Your task to perform on an android device: Clear the cart on costco. Add razer blade to the cart on costco, then select checkout. Image 0: 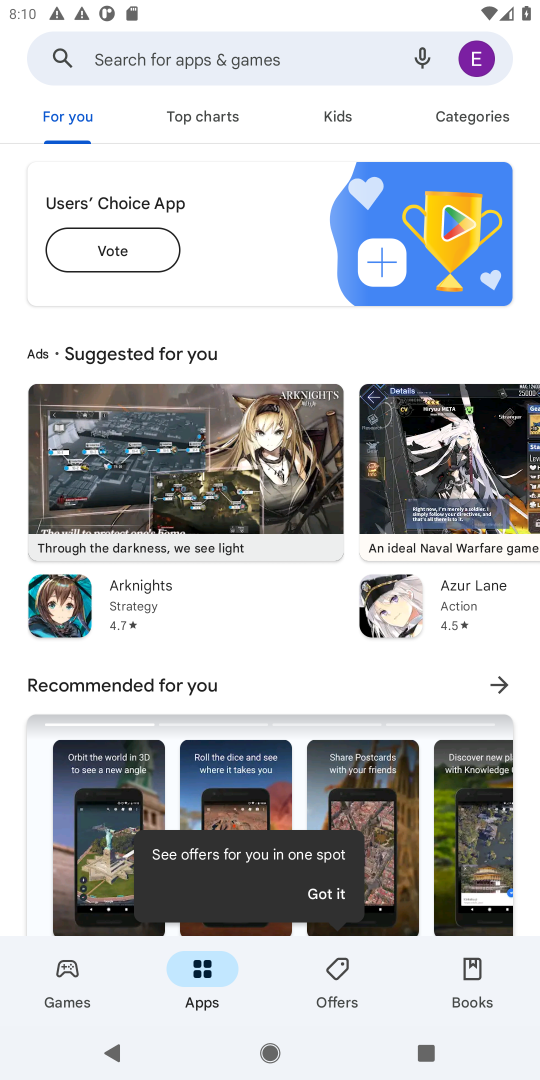
Step 0: press home button
Your task to perform on an android device: Clear the cart on costco. Add razer blade to the cart on costco, then select checkout. Image 1: 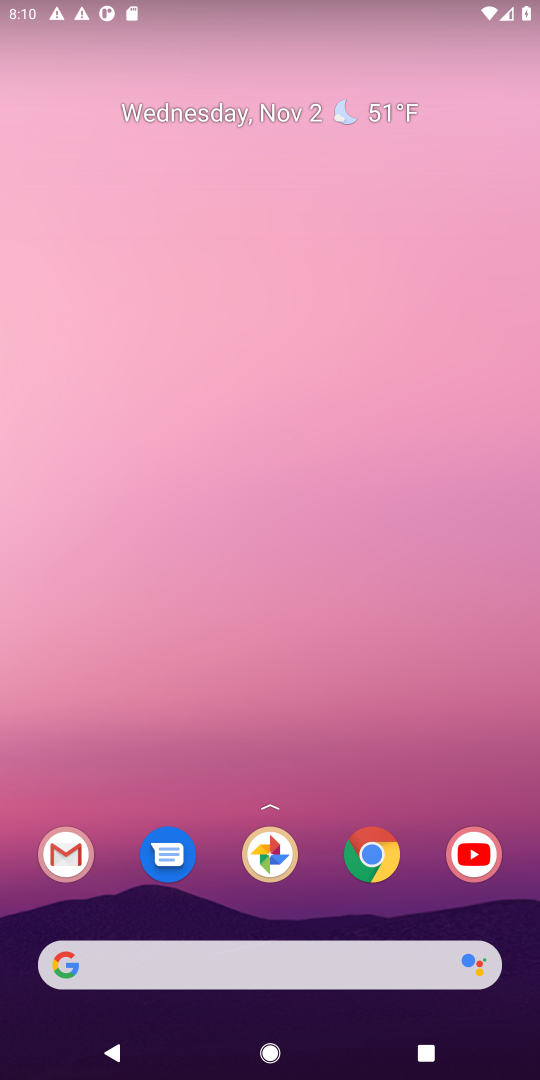
Step 1: click (368, 866)
Your task to perform on an android device: Clear the cart on costco. Add razer blade to the cart on costco, then select checkout. Image 2: 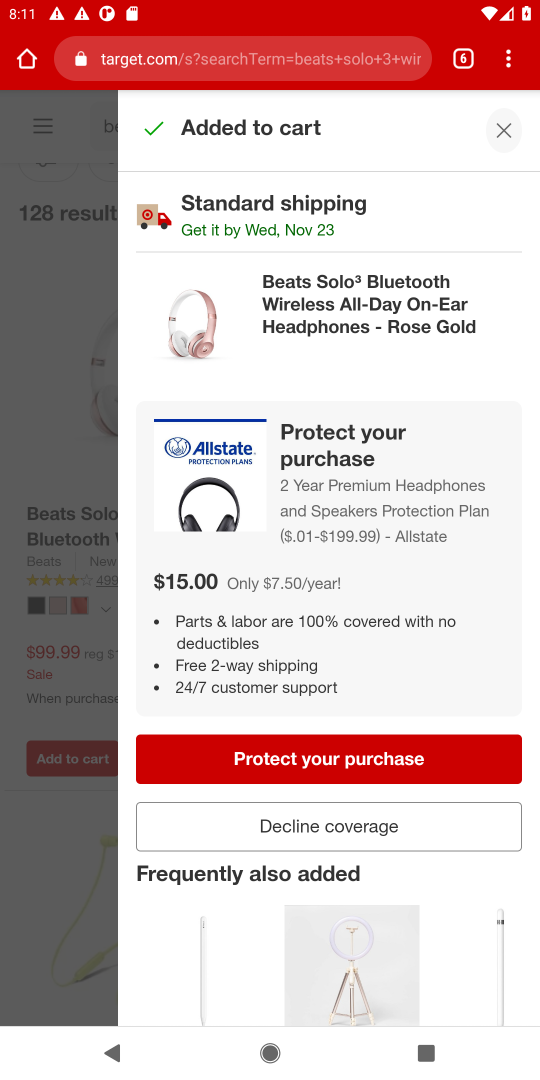
Step 2: click (464, 68)
Your task to perform on an android device: Clear the cart on costco. Add razer blade to the cart on costco, then select checkout. Image 3: 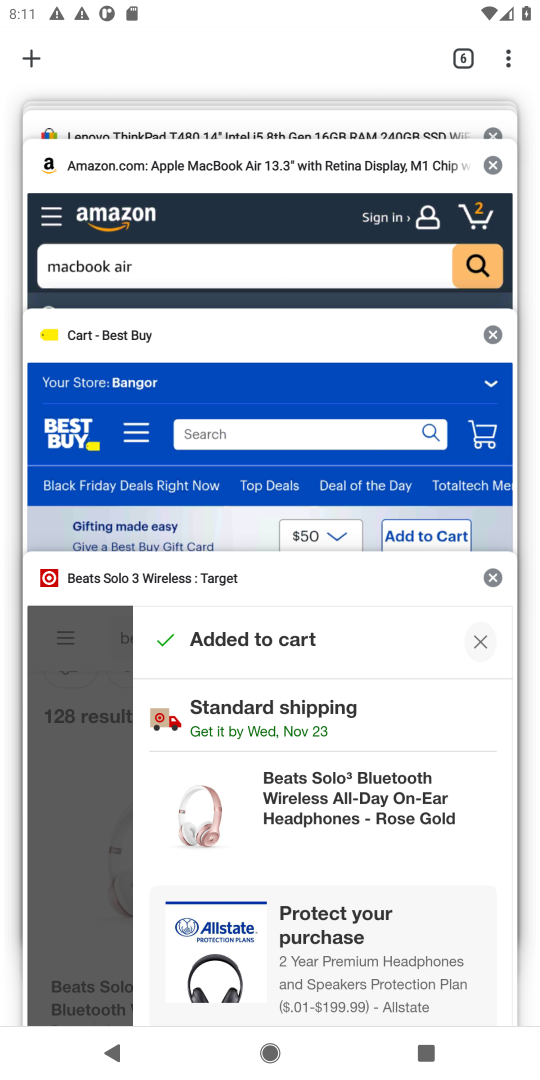
Step 3: drag from (358, 136) to (325, 571)
Your task to perform on an android device: Clear the cart on costco. Add razer blade to the cart on costco, then select checkout. Image 4: 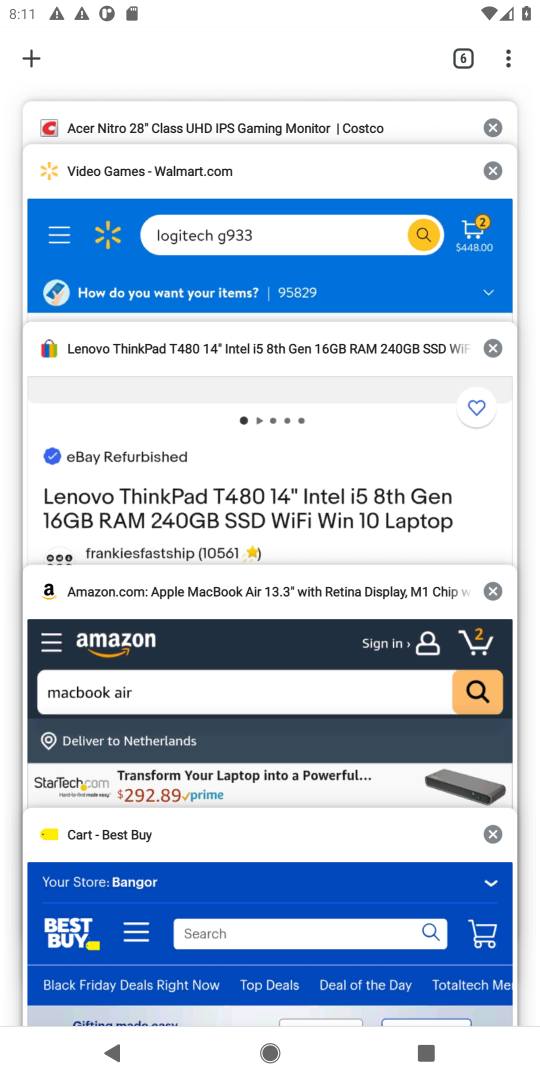
Step 4: drag from (353, 167) to (346, 340)
Your task to perform on an android device: Clear the cart on costco. Add razer blade to the cart on costco, then select checkout. Image 5: 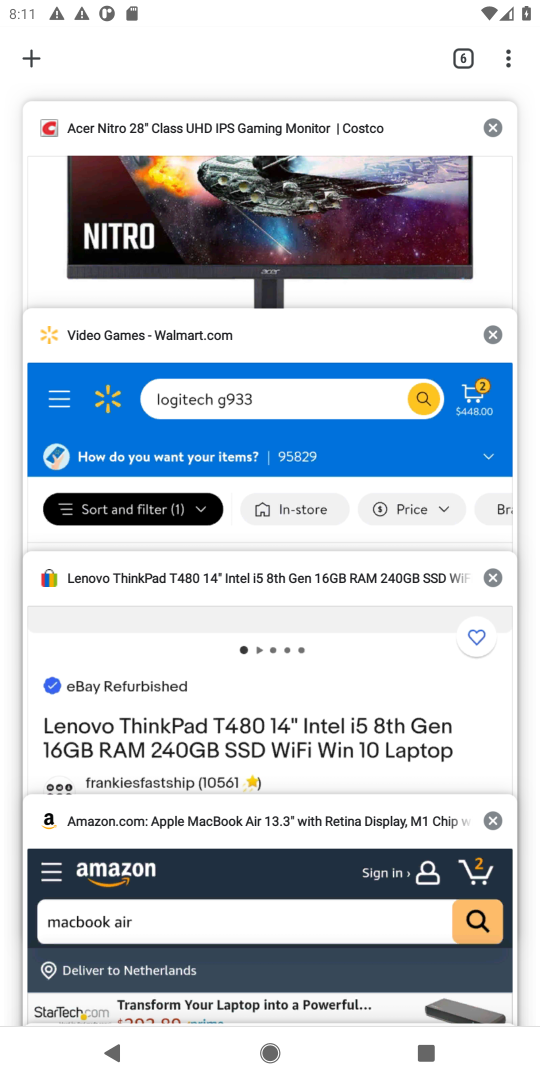
Step 5: click (242, 178)
Your task to perform on an android device: Clear the cart on costco. Add razer blade to the cart on costco, then select checkout. Image 6: 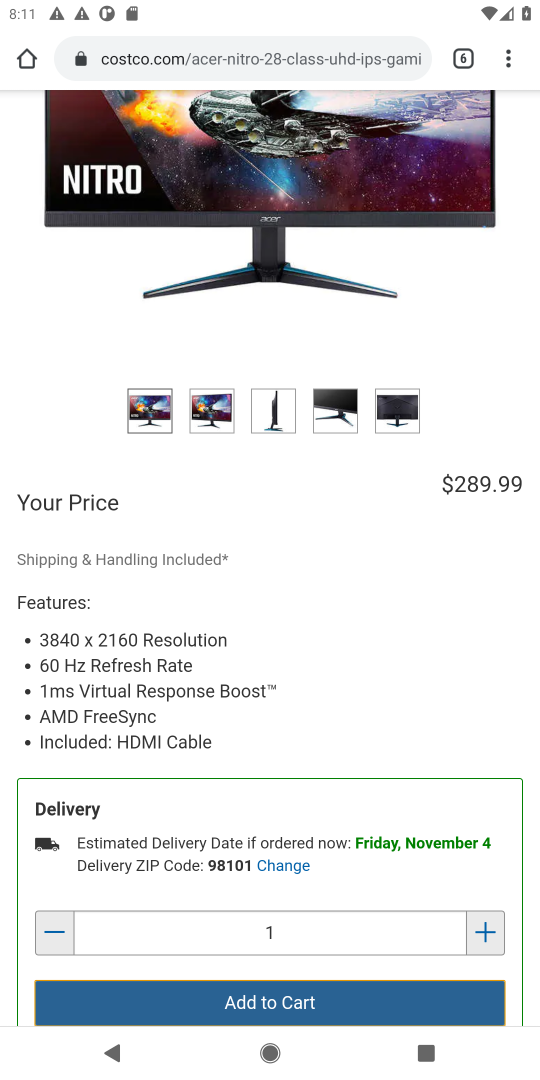
Step 6: drag from (440, 403) to (83, 1072)
Your task to perform on an android device: Clear the cart on costco. Add razer blade to the cart on costco, then select checkout. Image 7: 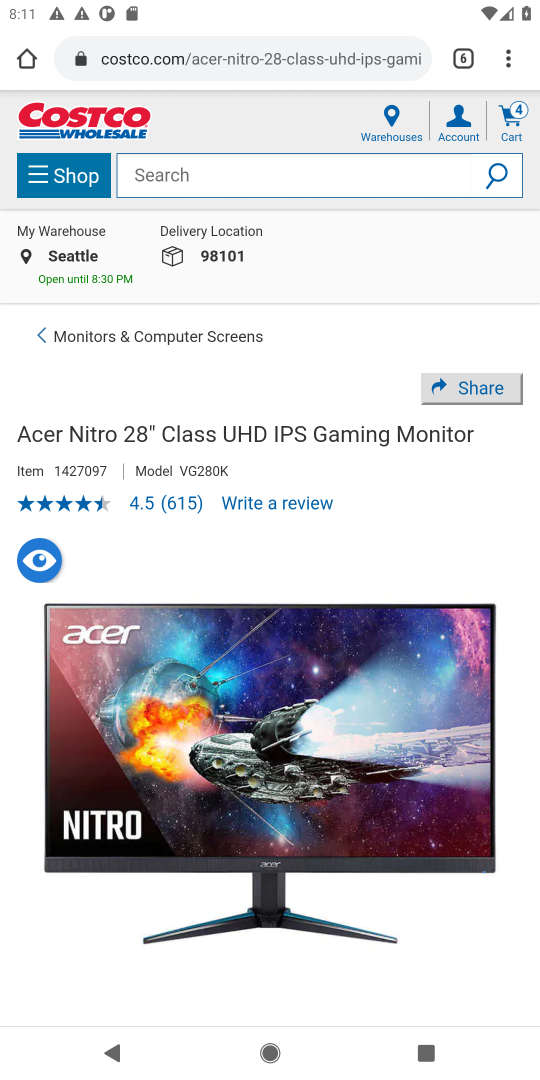
Step 7: click (205, 177)
Your task to perform on an android device: Clear the cart on costco. Add razer blade to the cart on costco, then select checkout. Image 8: 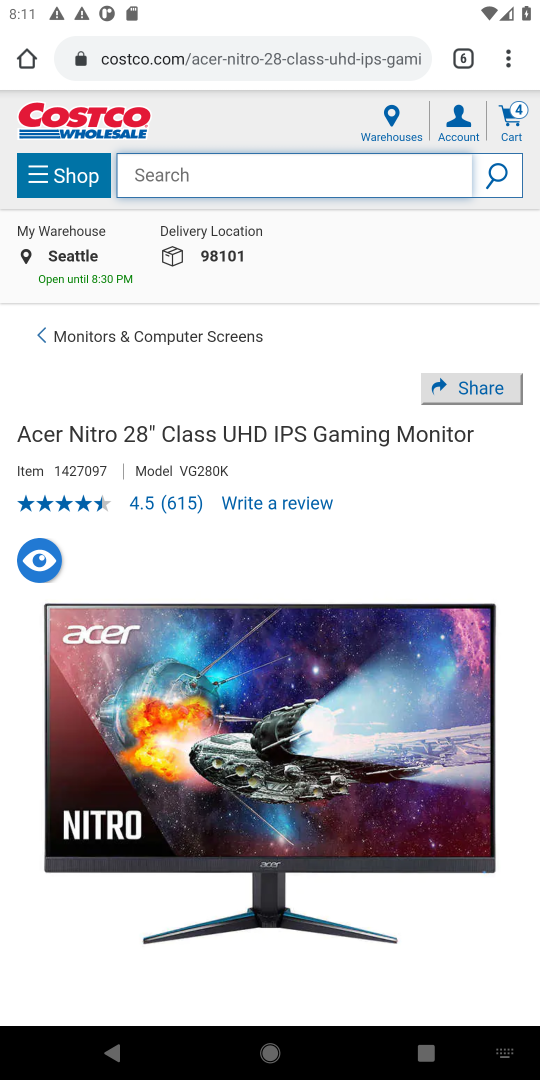
Step 8: type "razer blade"
Your task to perform on an android device: Clear the cart on costco. Add razer blade to the cart on costco, then select checkout. Image 9: 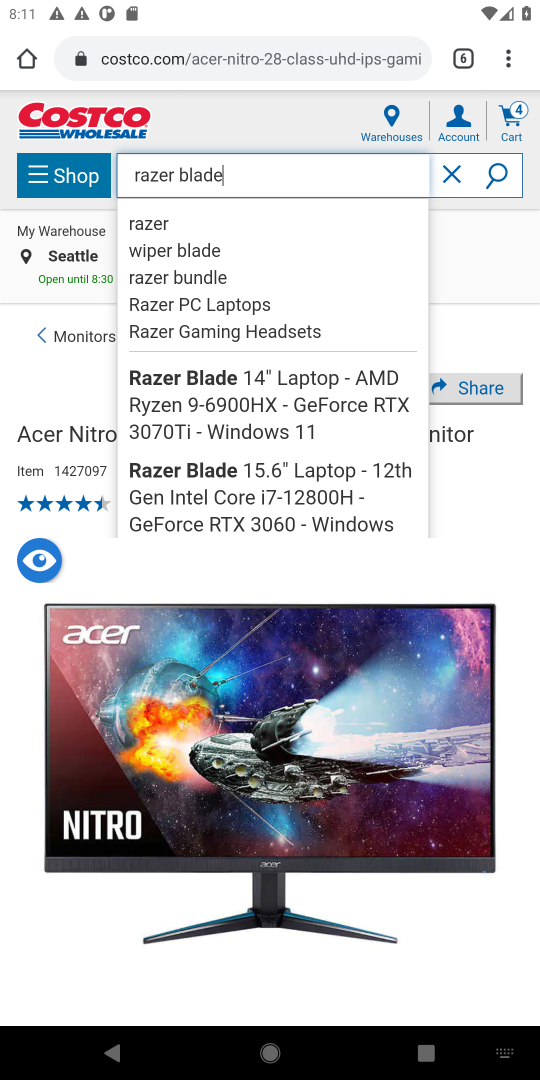
Step 9: click (294, 383)
Your task to perform on an android device: Clear the cart on costco. Add razer blade to the cart on costco, then select checkout. Image 10: 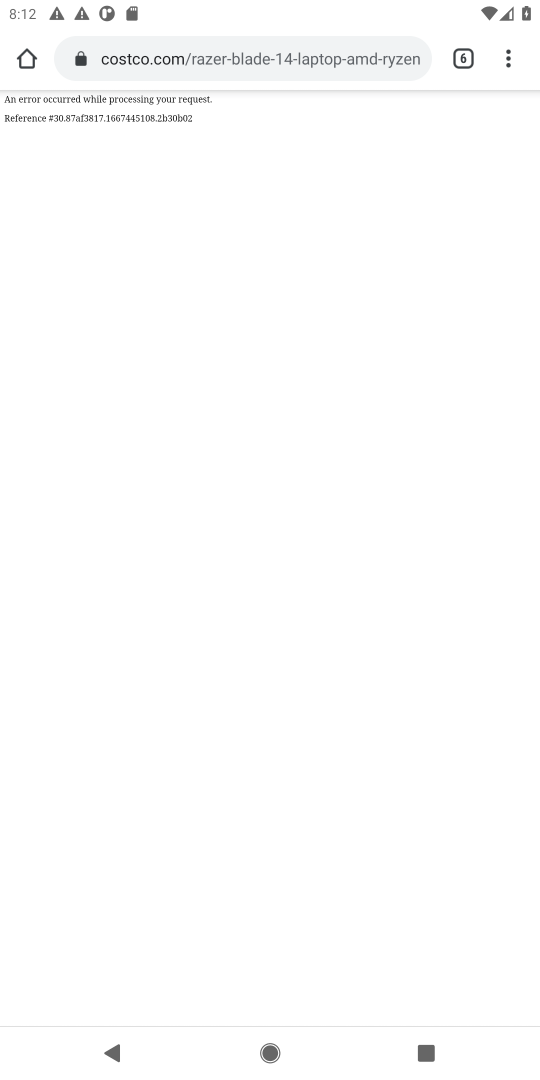
Step 10: press back button
Your task to perform on an android device: Clear the cart on costco. Add razer blade to the cart on costco, then select checkout. Image 11: 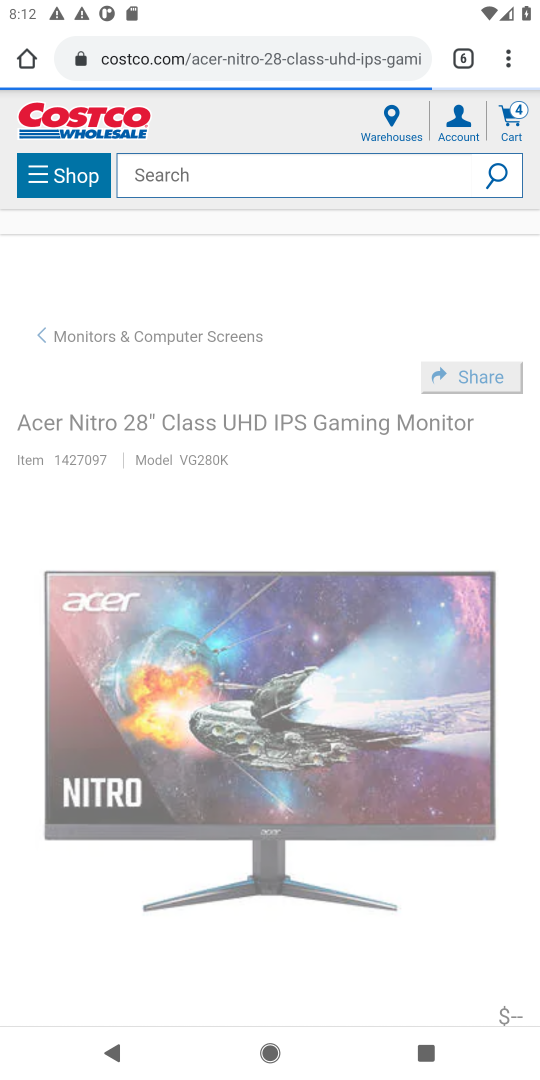
Step 11: click (202, 177)
Your task to perform on an android device: Clear the cart on costco. Add razer blade to the cart on costco, then select checkout. Image 12: 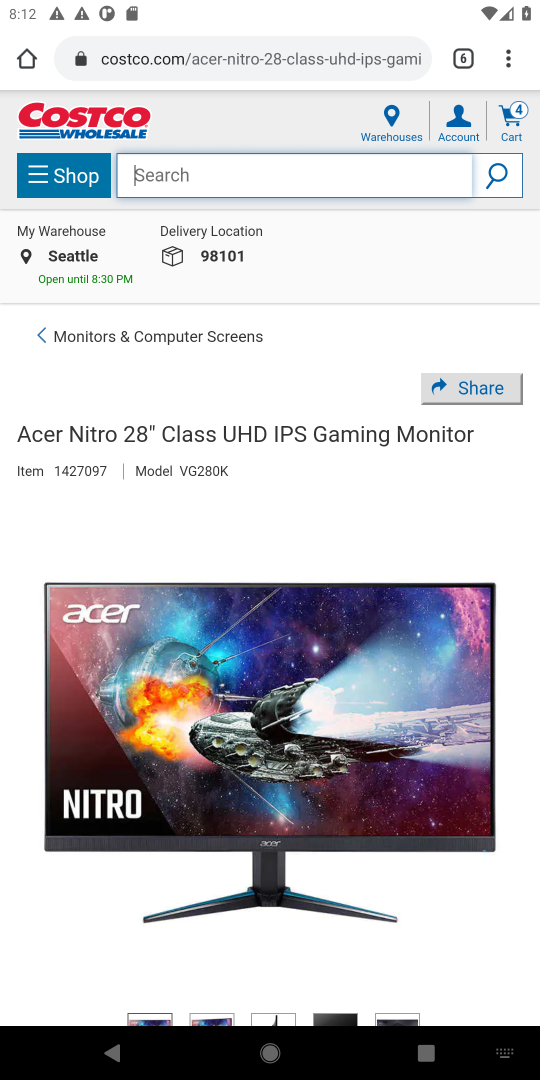
Step 12: type "razer b;l"
Your task to perform on an android device: Clear the cart on costco. Add razer blade to the cart on costco, then select checkout. Image 13: 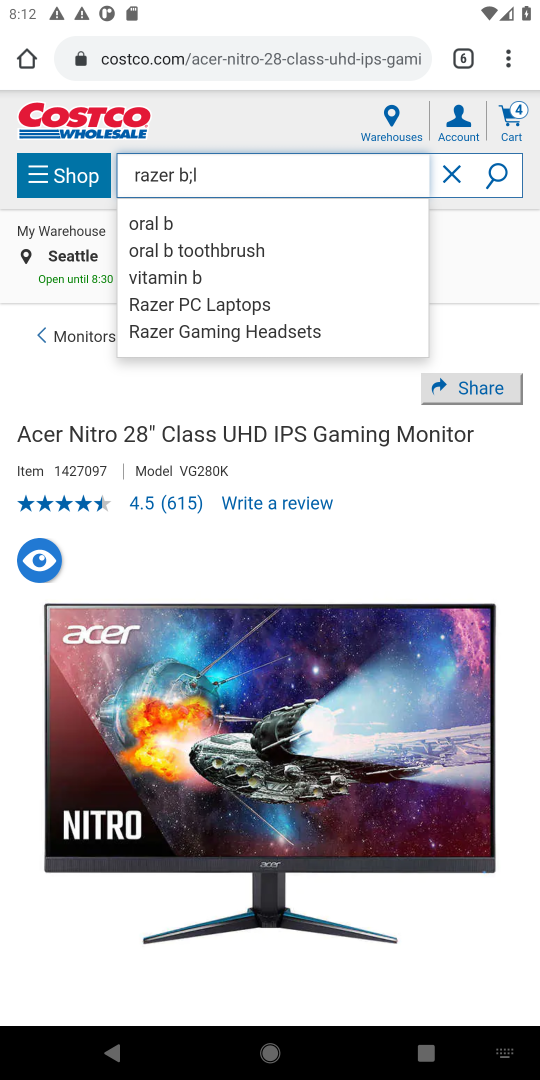
Step 13: type "ade"
Your task to perform on an android device: Clear the cart on costco. Add razer blade to the cart on costco, then select checkout. Image 14: 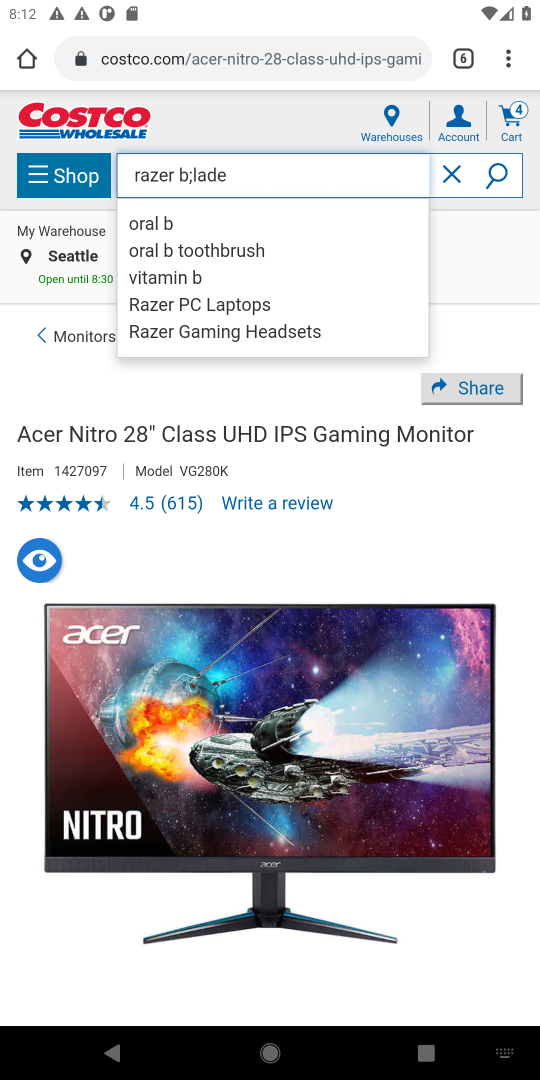
Step 14: click (493, 174)
Your task to perform on an android device: Clear the cart on costco. Add razer blade to the cart on costco, then select checkout. Image 15: 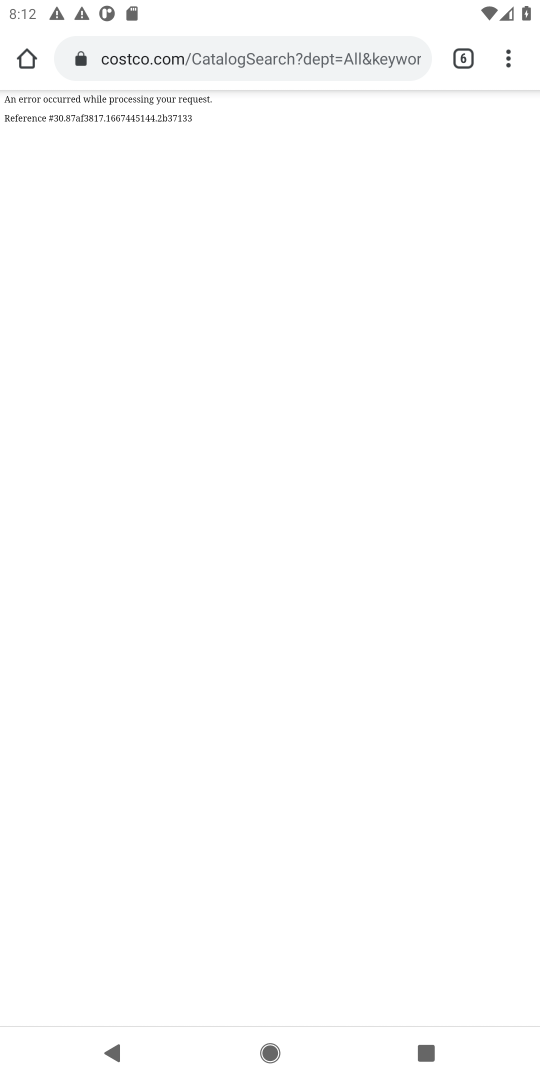
Step 15: task complete